Your task to perform on an android device: Go to Yahoo.com Image 0: 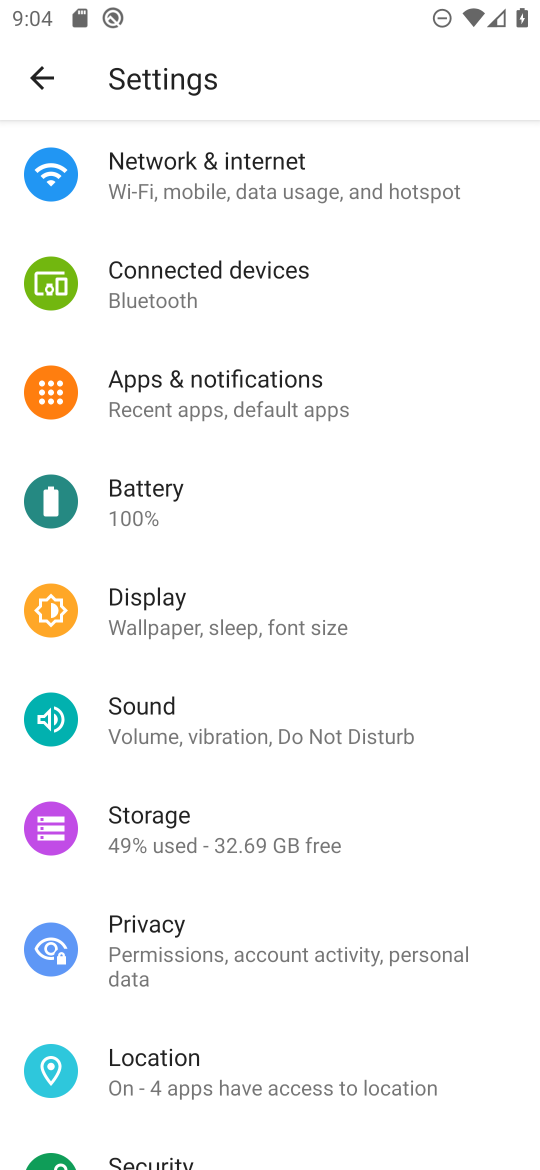
Step 0: press home button
Your task to perform on an android device: Go to Yahoo.com Image 1: 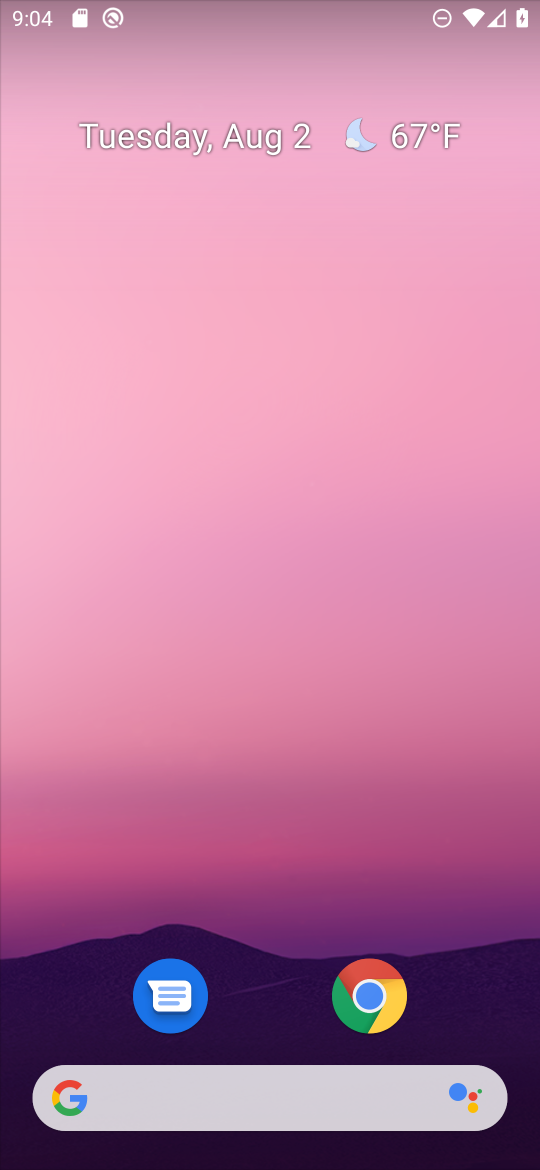
Step 1: drag from (307, 985) to (396, 44)
Your task to perform on an android device: Go to Yahoo.com Image 2: 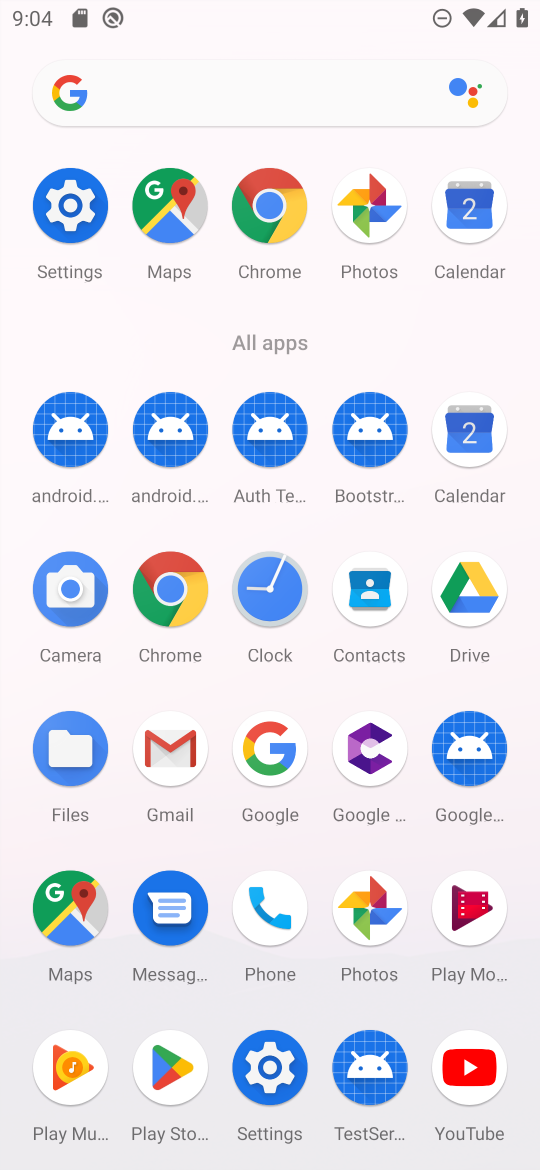
Step 2: click (167, 592)
Your task to perform on an android device: Go to Yahoo.com Image 3: 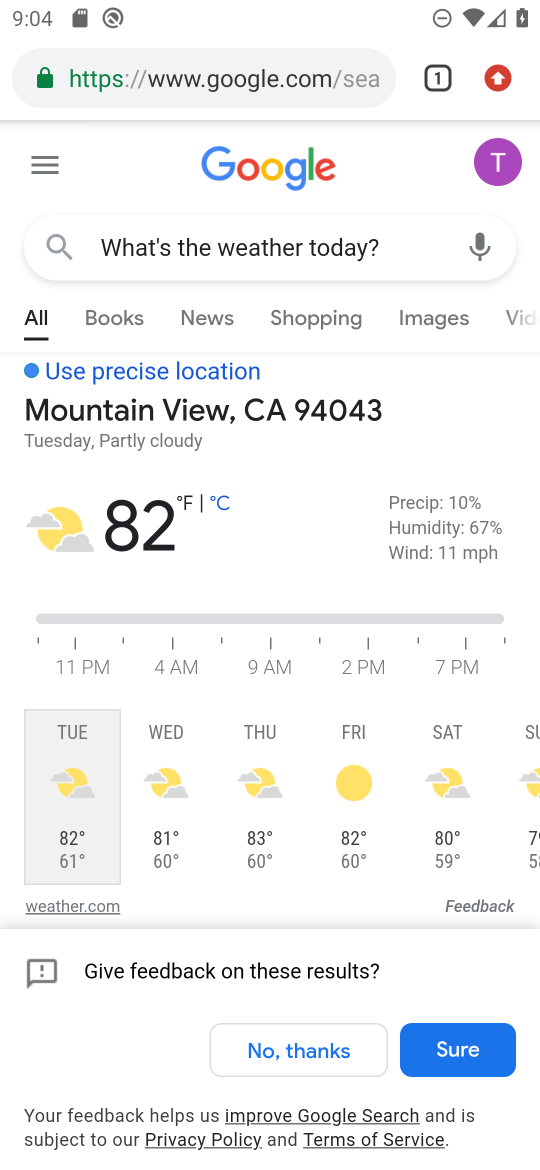
Step 3: click (177, 80)
Your task to perform on an android device: Go to Yahoo.com Image 4: 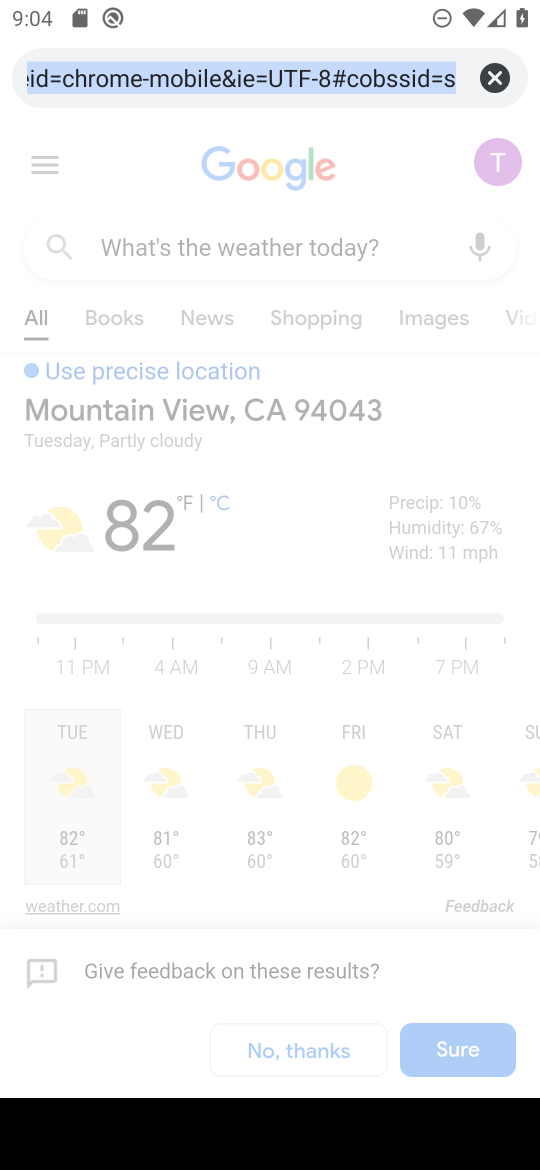
Step 4: click (493, 75)
Your task to perform on an android device: Go to Yahoo.com Image 5: 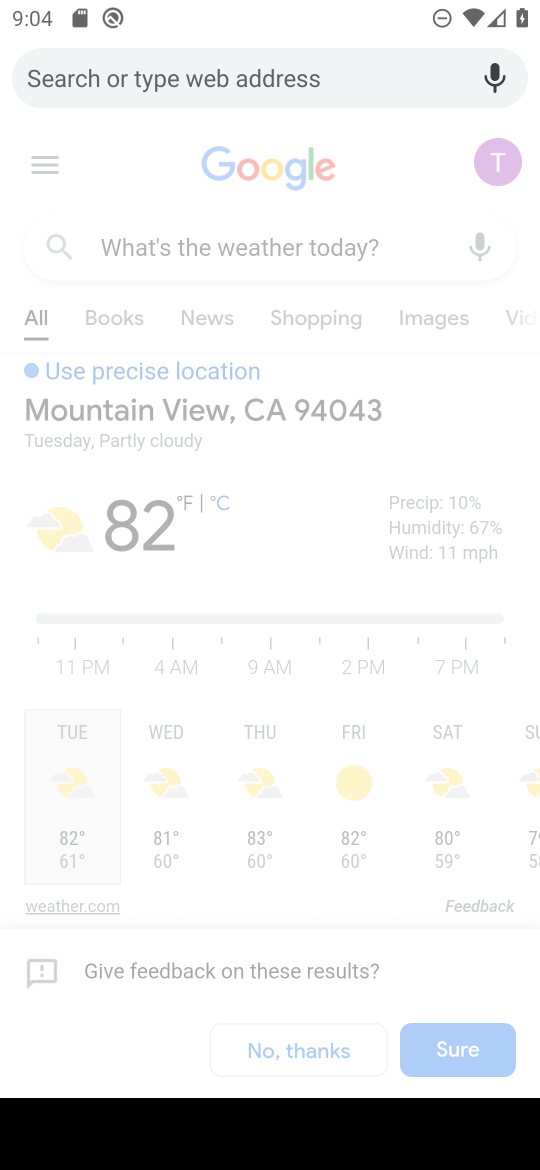
Step 5: type "Go to Yahoo.com"
Your task to perform on an android device: Go to Yahoo.com Image 6: 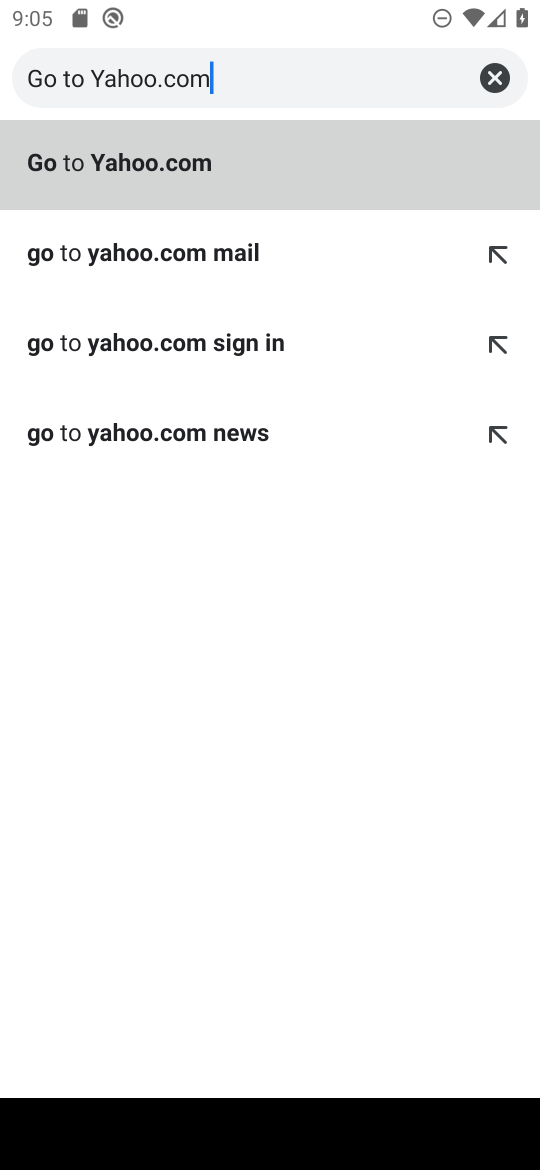
Step 6: click (66, 151)
Your task to perform on an android device: Go to Yahoo.com Image 7: 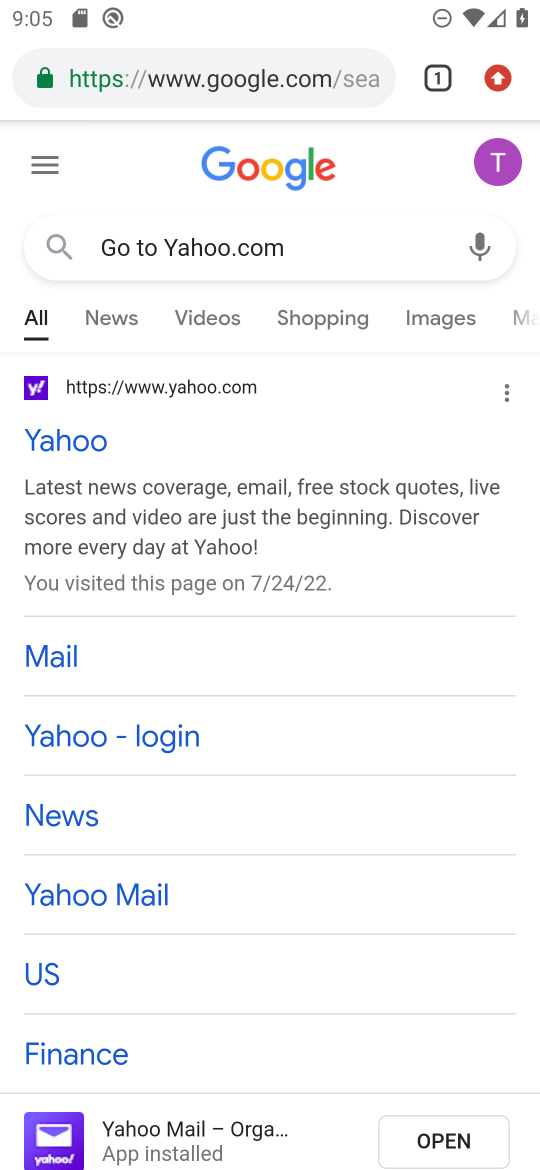
Step 7: task complete